Your task to perform on an android device: Show me the alarms in the clock app Image 0: 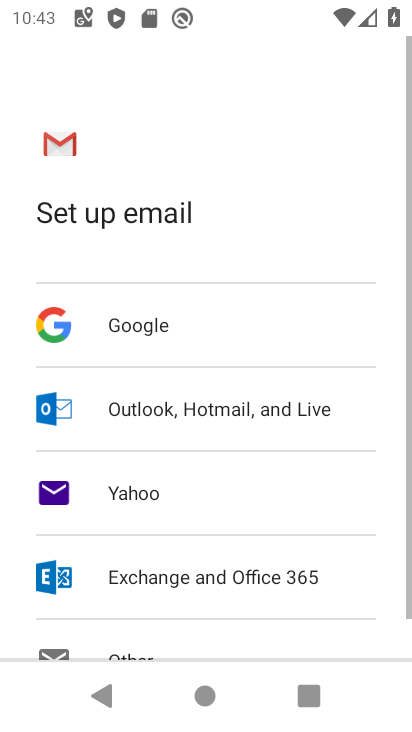
Step 0: press home button
Your task to perform on an android device: Show me the alarms in the clock app Image 1: 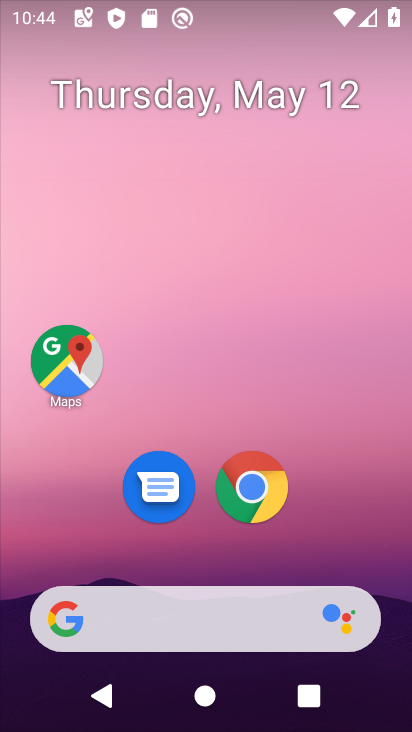
Step 1: drag from (14, 596) to (299, 177)
Your task to perform on an android device: Show me the alarms in the clock app Image 2: 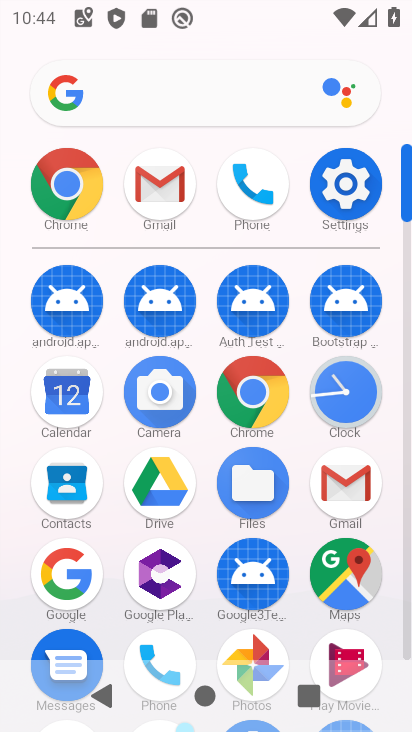
Step 2: click (358, 393)
Your task to perform on an android device: Show me the alarms in the clock app Image 3: 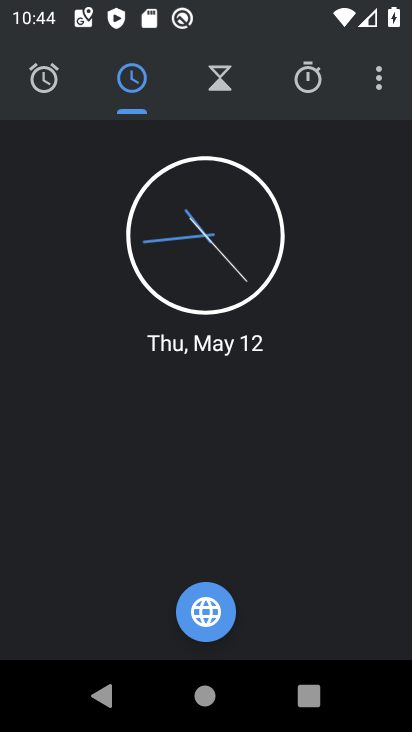
Step 3: click (38, 78)
Your task to perform on an android device: Show me the alarms in the clock app Image 4: 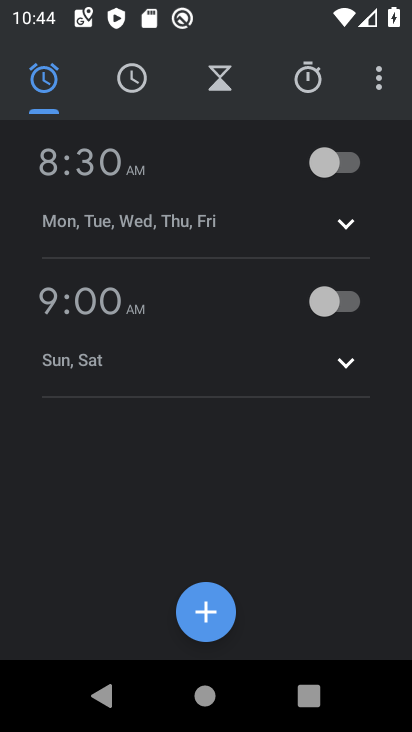
Step 4: task complete